Your task to perform on an android device: find photos in the google photos app Image 0: 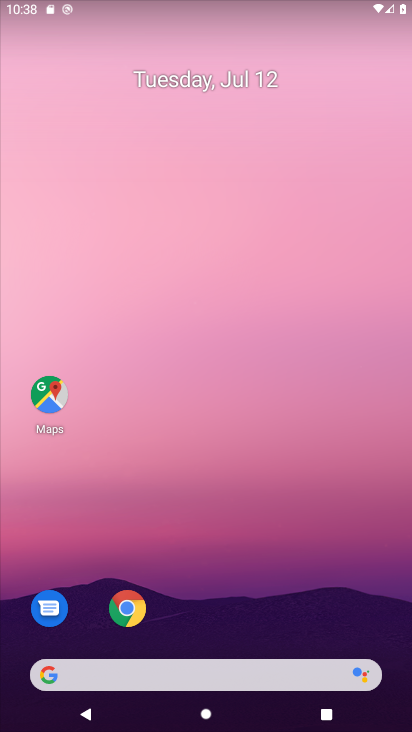
Step 0: click (209, 191)
Your task to perform on an android device: find photos in the google photos app Image 1: 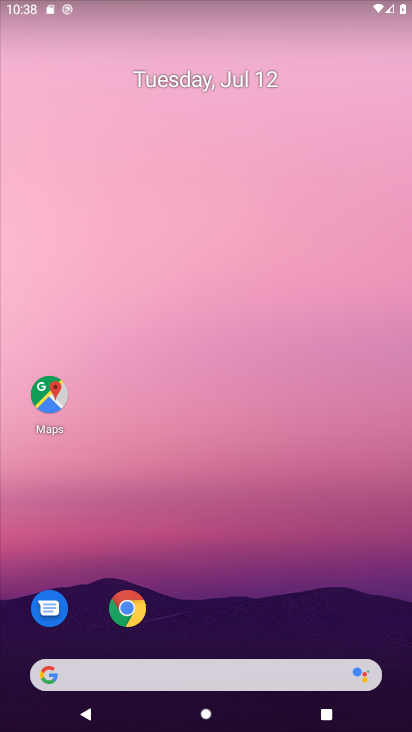
Step 1: drag from (205, 47) to (170, 2)
Your task to perform on an android device: find photos in the google photos app Image 2: 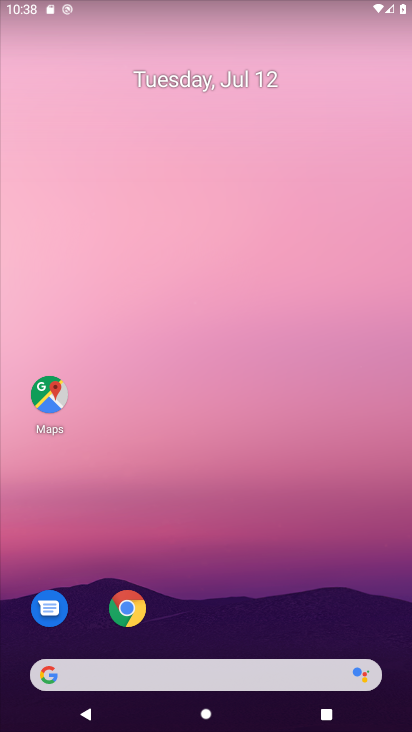
Step 2: drag from (195, 74) to (177, 0)
Your task to perform on an android device: find photos in the google photos app Image 3: 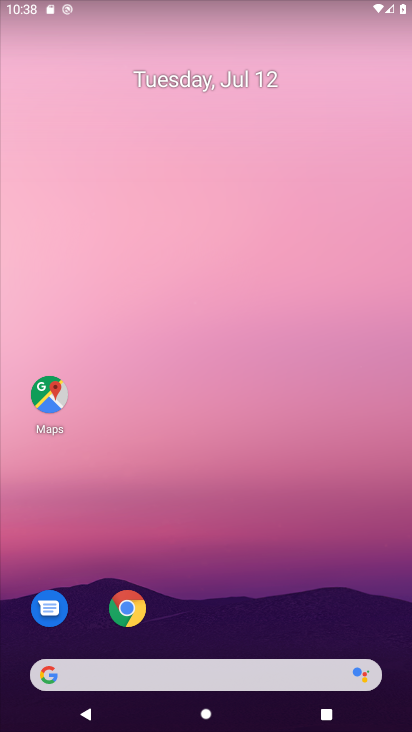
Step 3: click (190, 0)
Your task to perform on an android device: find photos in the google photos app Image 4: 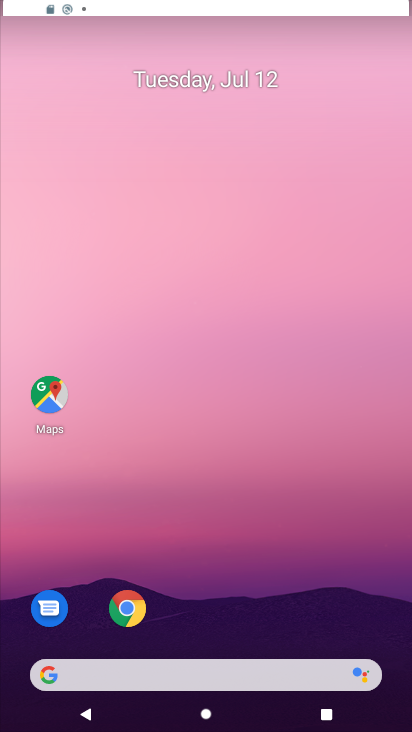
Step 4: click (199, 11)
Your task to perform on an android device: find photos in the google photos app Image 5: 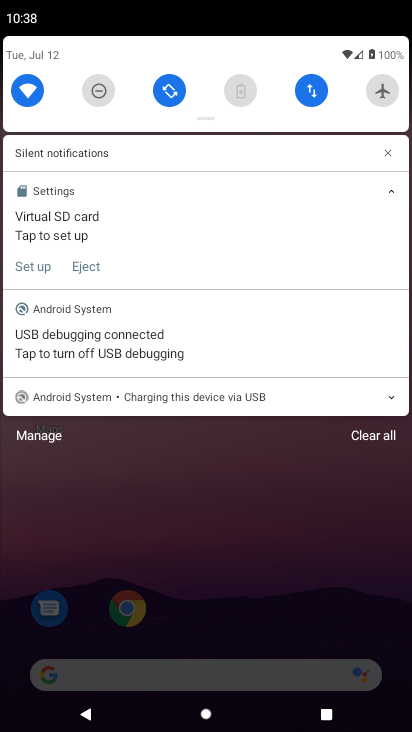
Step 5: click (193, 57)
Your task to perform on an android device: find photos in the google photos app Image 6: 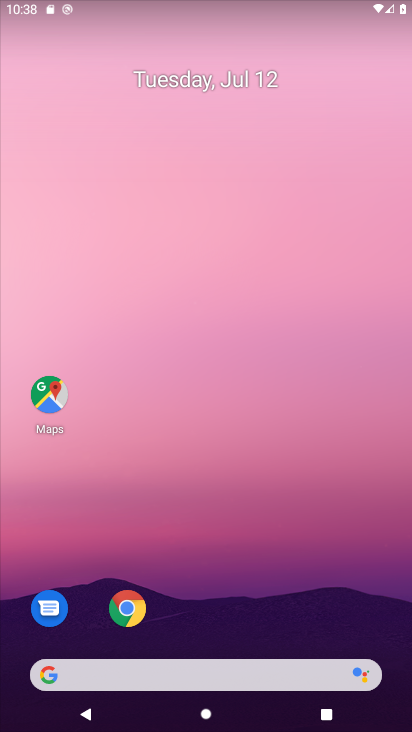
Step 6: click (239, 30)
Your task to perform on an android device: find photos in the google photos app Image 7: 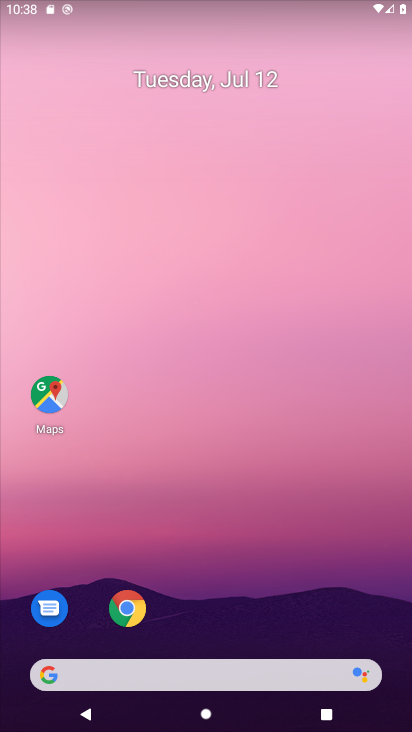
Step 7: drag from (209, 608) to (181, 101)
Your task to perform on an android device: find photos in the google photos app Image 8: 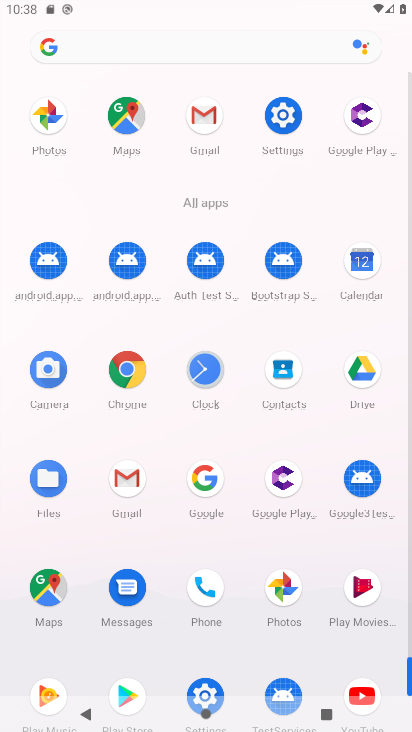
Step 8: drag from (204, 46) to (255, 81)
Your task to perform on an android device: find photos in the google photos app Image 9: 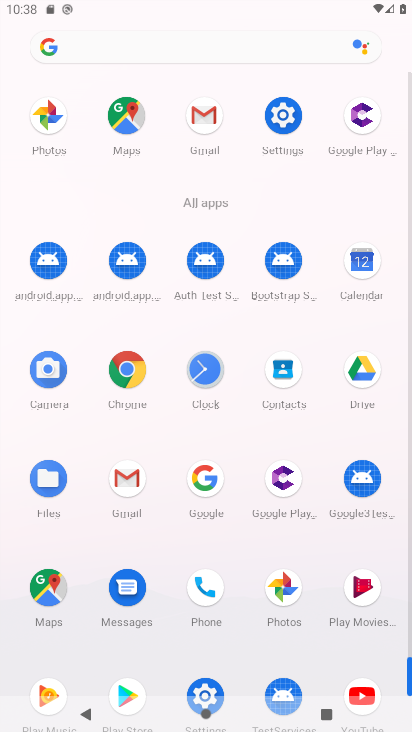
Step 9: press back button
Your task to perform on an android device: find photos in the google photos app Image 10: 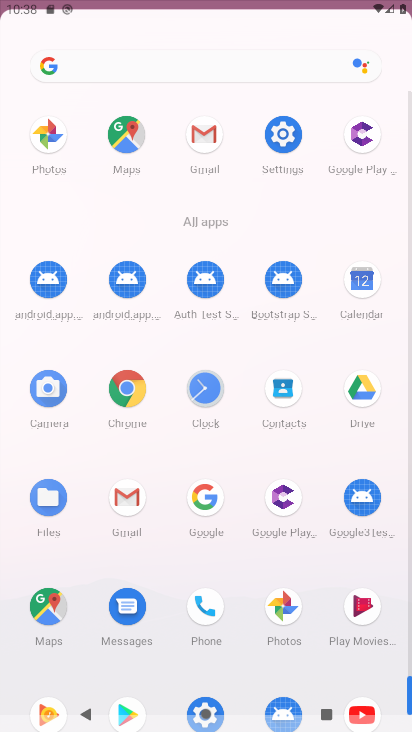
Step 10: drag from (171, 426) to (78, 120)
Your task to perform on an android device: find photos in the google photos app Image 11: 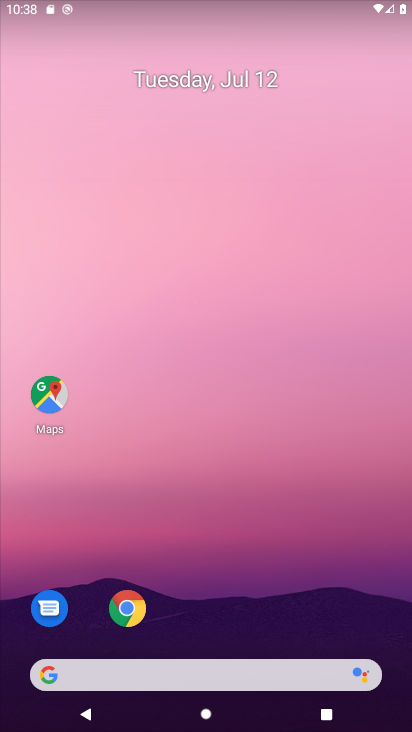
Step 11: drag from (264, 700) to (199, 173)
Your task to perform on an android device: find photos in the google photos app Image 12: 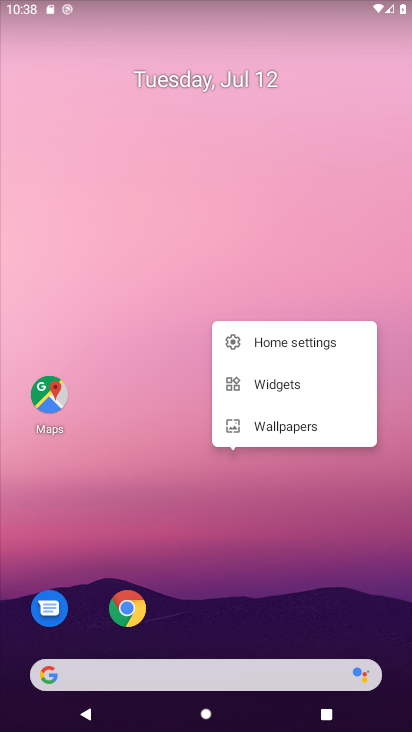
Step 12: drag from (292, 592) to (277, 150)
Your task to perform on an android device: find photos in the google photos app Image 13: 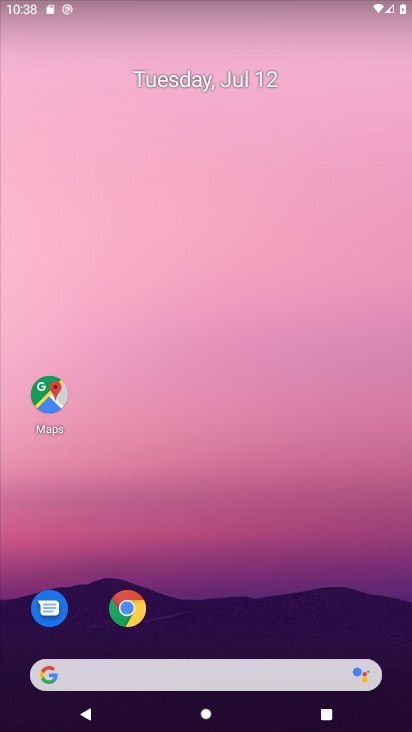
Step 13: drag from (199, 99) to (143, 38)
Your task to perform on an android device: find photos in the google photos app Image 14: 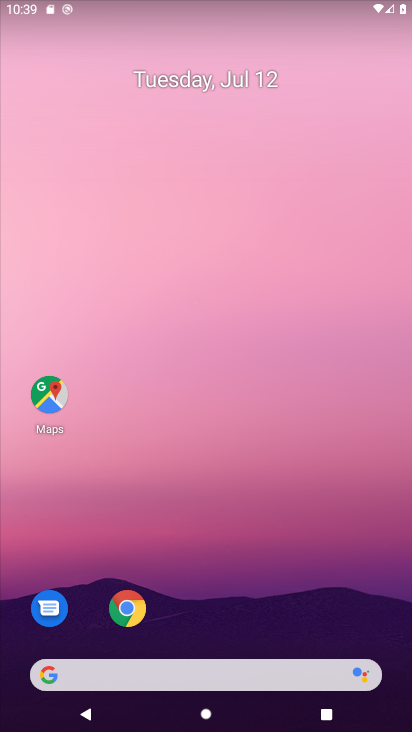
Step 14: click (182, 238)
Your task to perform on an android device: find photos in the google photos app Image 15: 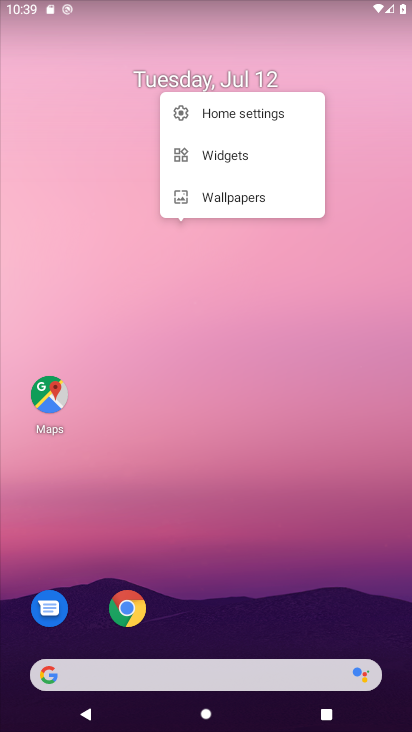
Step 15: task complete